Your task to perform on an android device: Check the news Image 0: 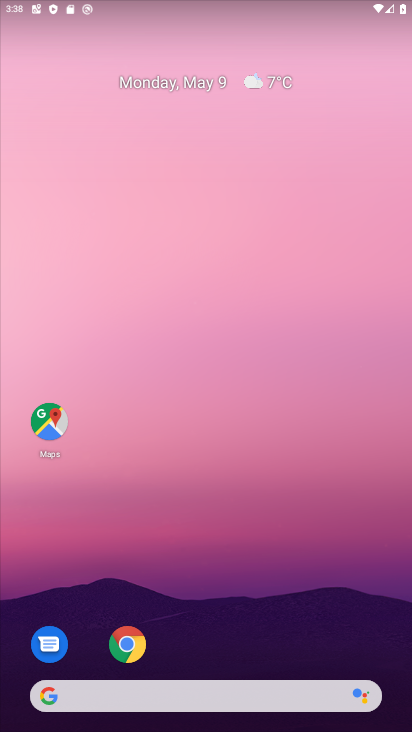
Step 0: drag from (303, 658) to (199, 54)
Your task to perform on an android device: Check the news Image 1: 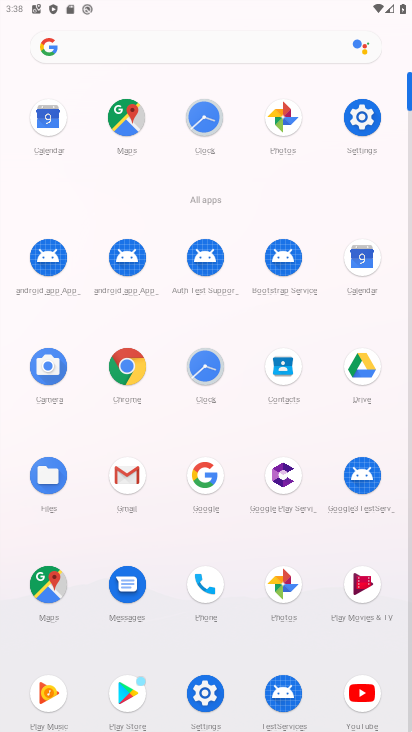
Step 1: task complete